Your task to perform on an android device: Go to Yahoo.com Image 0: 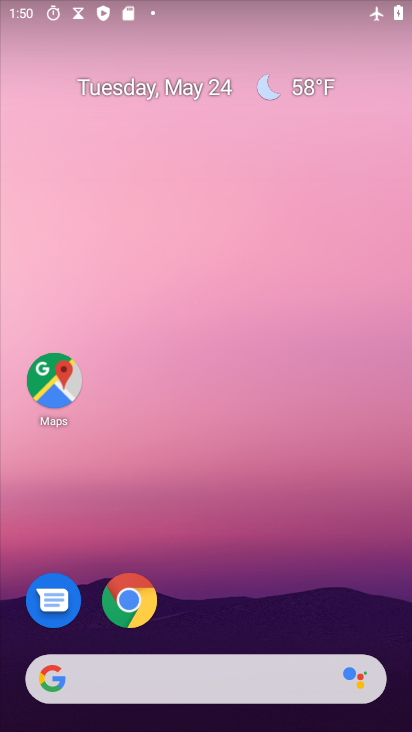
Step 0: click (127, 598)
Your task to perform on an android device: Go to Yahoo.com Image 1: 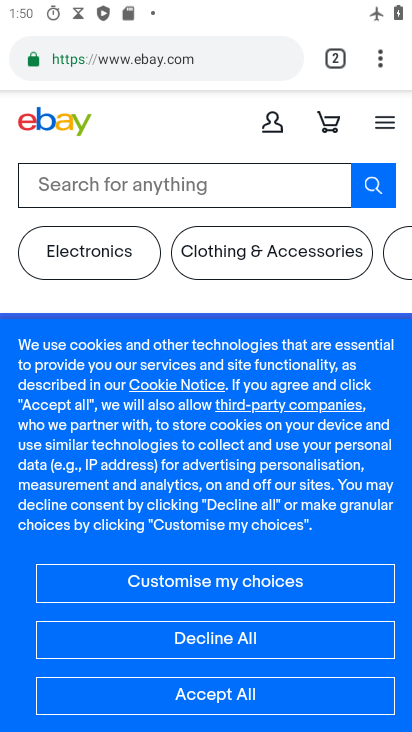
Step 1: click (329, 69)
Your task to perform on an android device: Go to Yahoo.com Image 2: 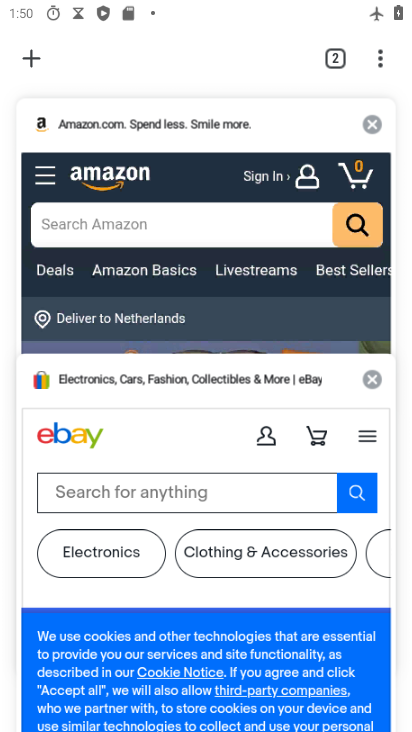
Step 2: click (21, 59)
Your task to perform on an android device: Go to Yahoo.com Image 3: 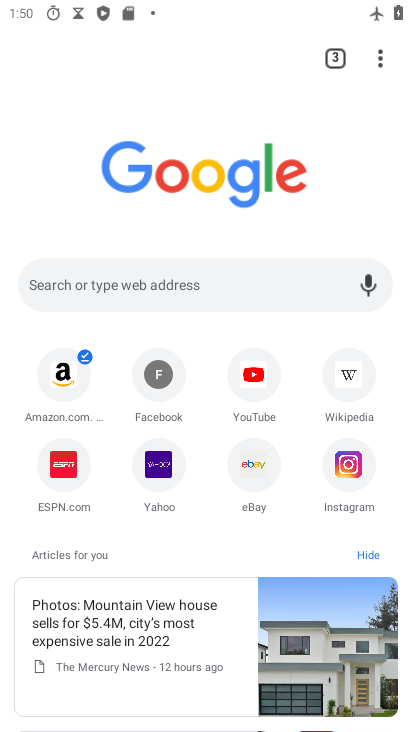
Step 3: click (162, 467)
Your task to perform on an android device: Go to Yahoo.com Image 4: 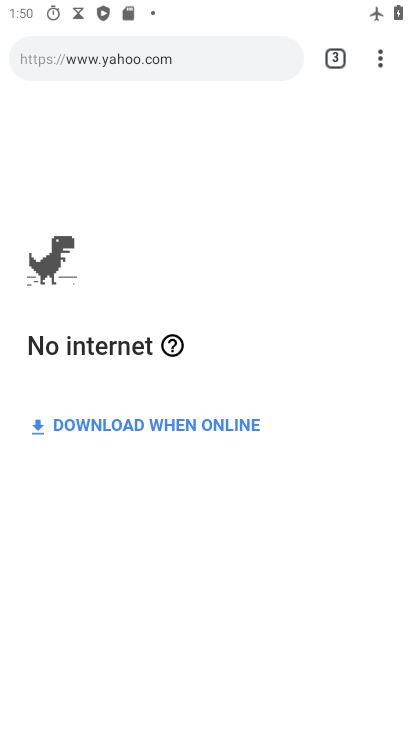
Step 4: task complete